Your task to perform on an android device: Do I have any events today? Image 0: 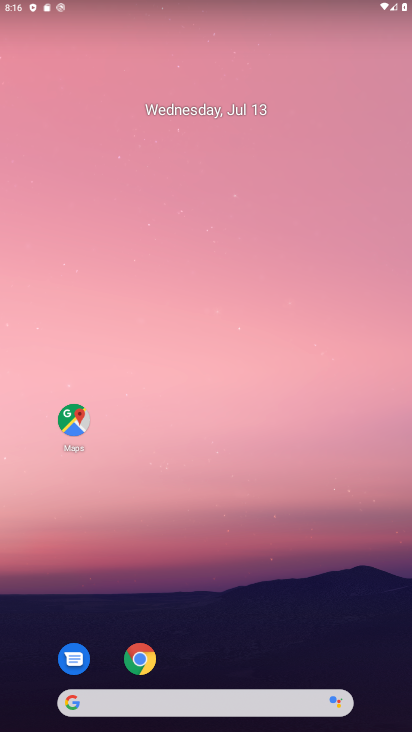
Step 0: drag from (9, 686) to (286, 1)
Your task to perform on an android device: Do I have any events today? Image 1: 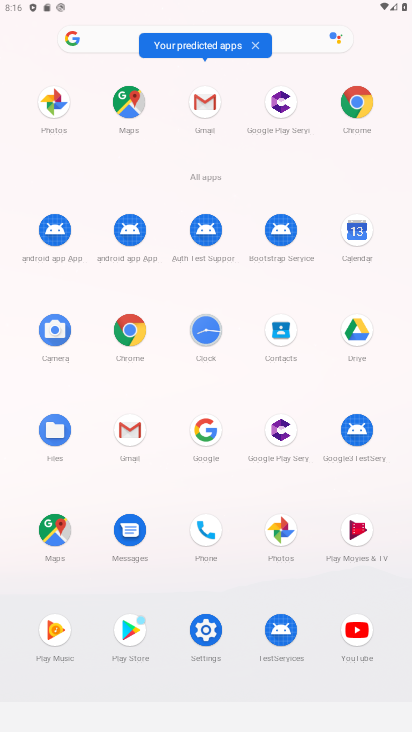
Step 1: click (347, 239)
Your task to perform on an android device: Do I have any events today? Image 2: 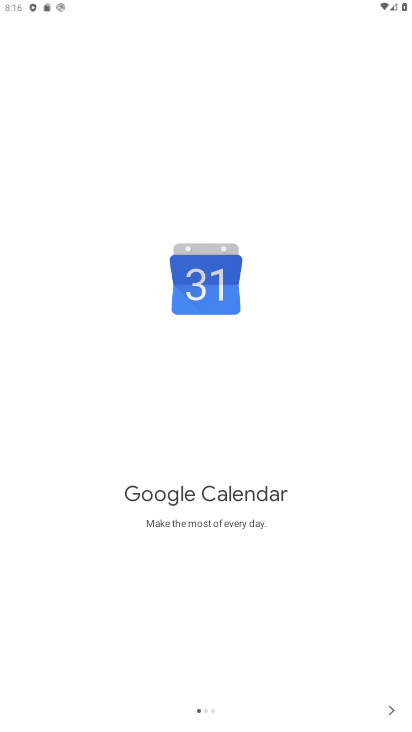
Step 2: click (390, 713)
Your task to perform on an android device: Do I have any events today? Image 3: 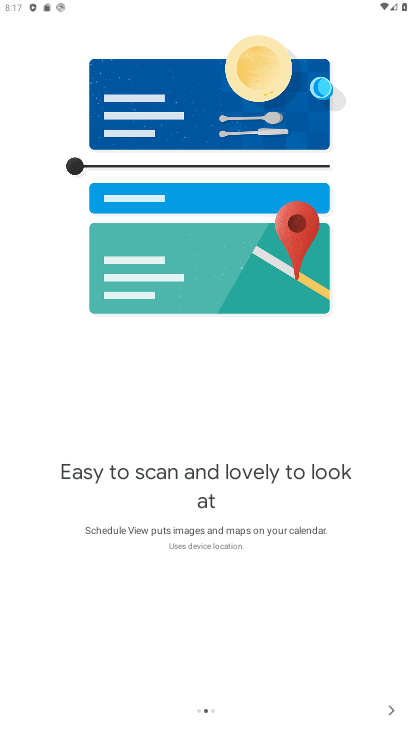
Step 3: click (390, 713)
Your task to perform on an android device: Do I have any events today? Image 4: 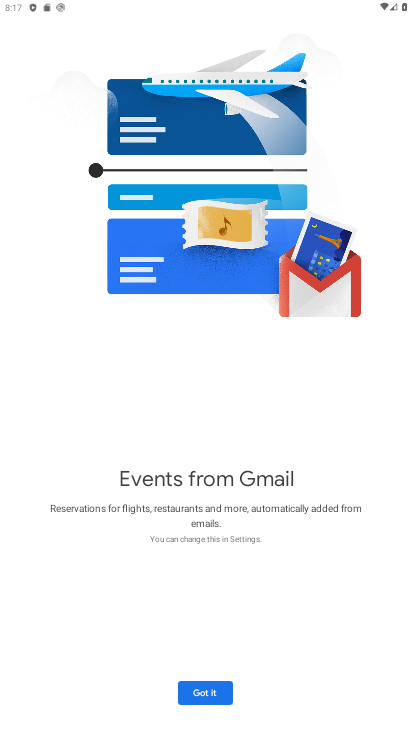
Step 4: click (204, 700)
Your task to perform on an android device: Do I have any events today? Image 5: 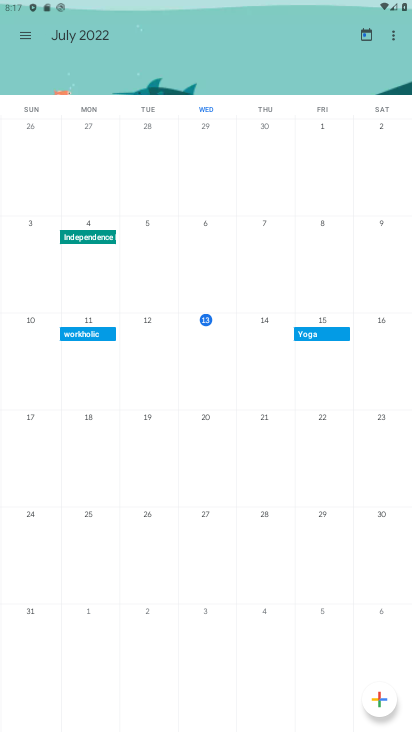
Step 5: click (322, 346)
Your task to perform on an android device: Do I have any events today? Image 6: 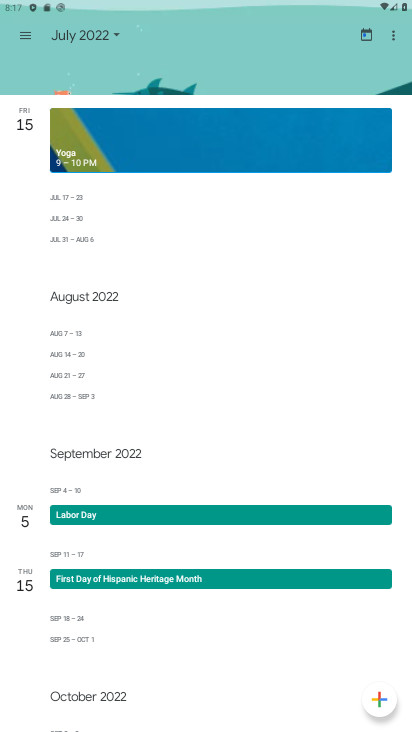
Step 6: task complete